Your task to perform on an android device: turn off data saver in the chrome app Image 0: 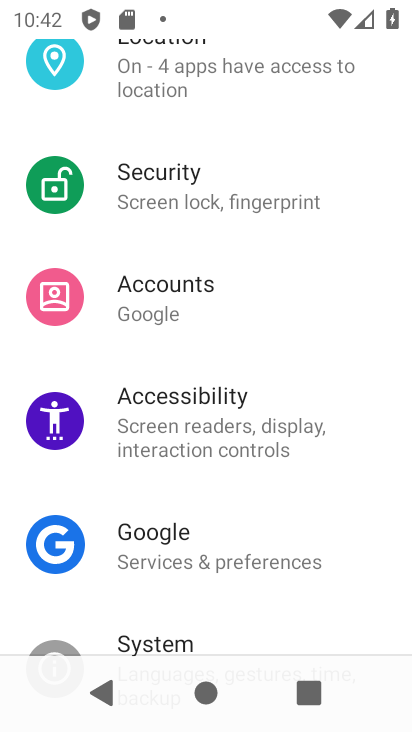
Step 0: press back button
Your task to perform on an android device: turn off data saver in the chrome app Image 1: 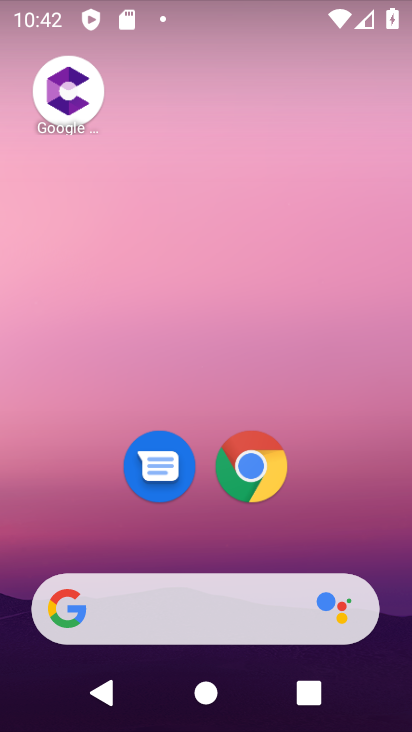
Step 1: click (227, 464)
Your task to perform on an android device: turn off data saver in the chrome app Image 2: 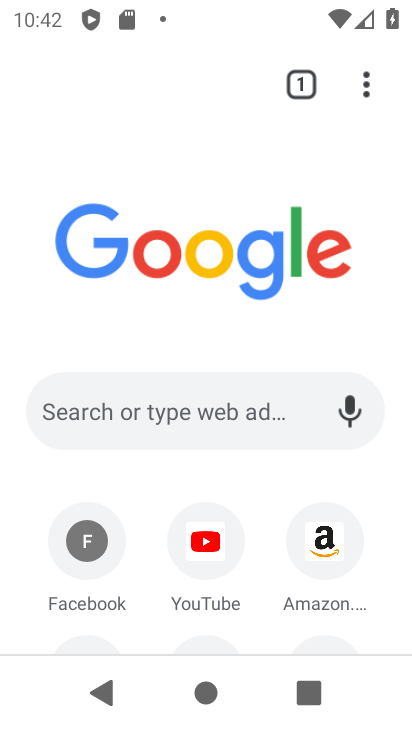
Step 2: click (367, 77)
Your task to perform on an android device: turn off data saver in the chrome app Image 3: 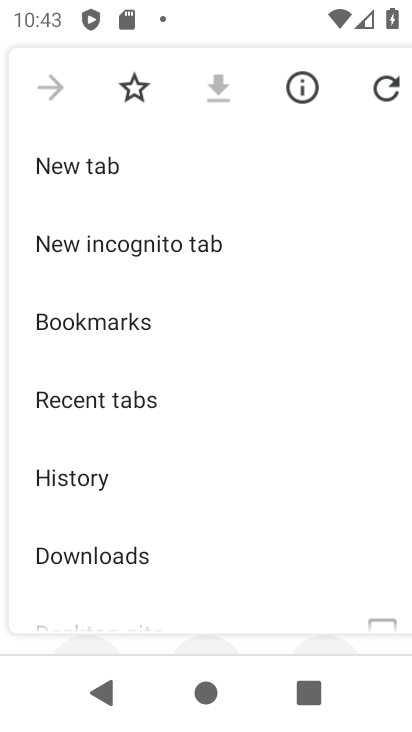
Step 3: drag from (127, 552) to (178, 82)
Your task to perform on an android device: turn off data saver in the chrome app Image 4: 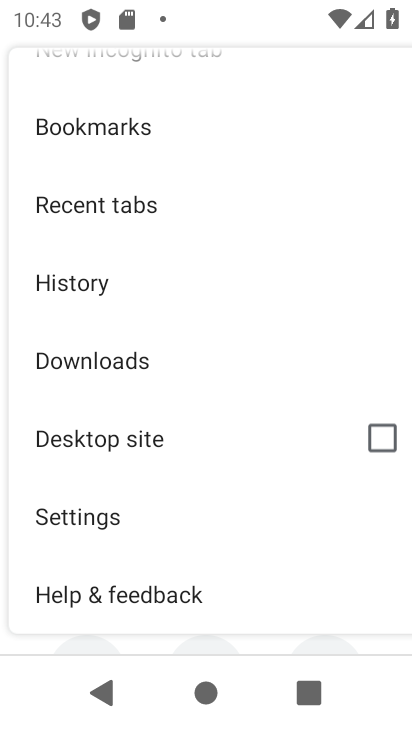
Step 4: click (88, 514)
Your task to perform on an android device: turn off data saver in the chrome app Image 5: 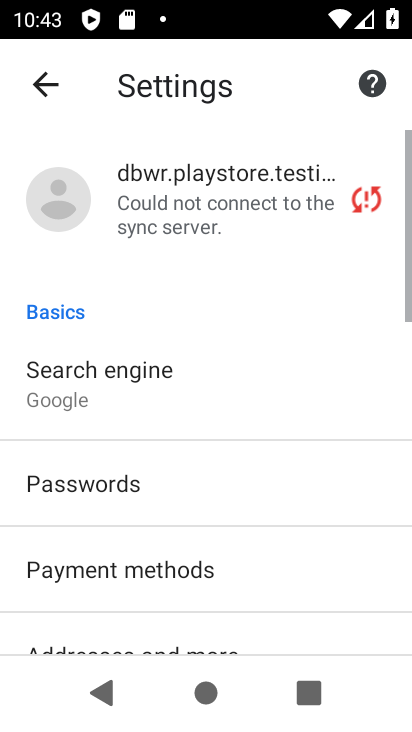
Step 5: drag from (158, 587) to (196, 126)
Your task to perform on an android device: turn off data saver in the chrome app Image 6: 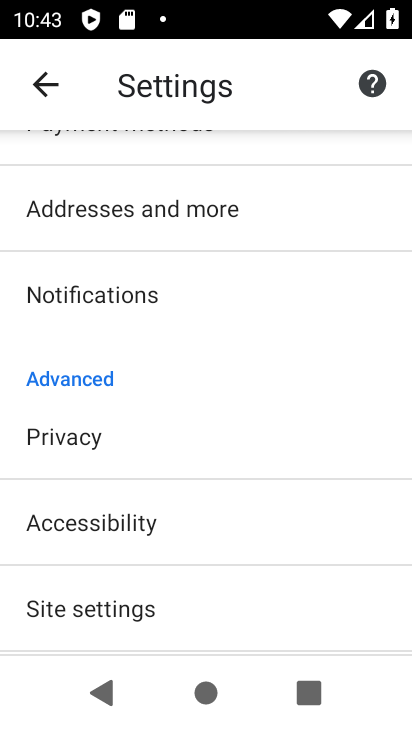
Step 6: drag from (177, 626) to (170, 138)
Your task to perform on an android device: turn off data saver in the chrome app Image 7: 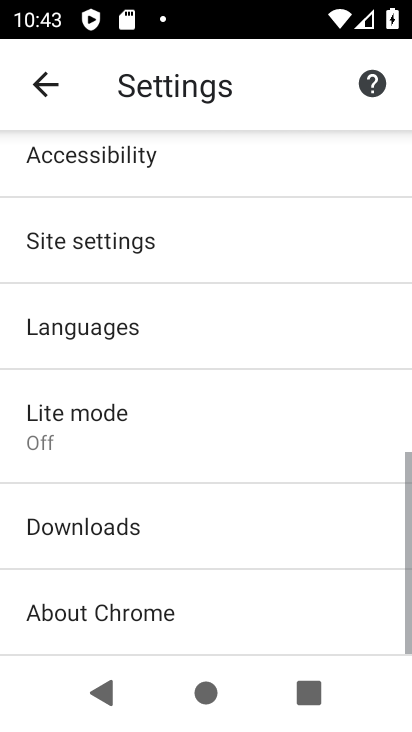
Step 7: click (95, 426)
Your task to perform on an android device: turn off data saver in the chrome app Image 8: 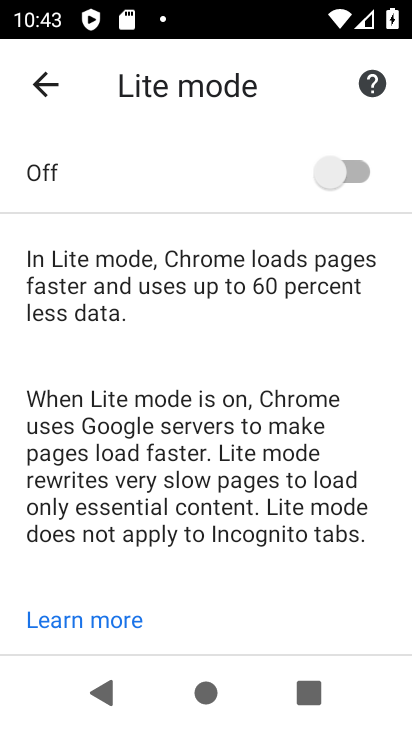
Step 8: task complete